Your task to perform on an android device: check storage Image 0: 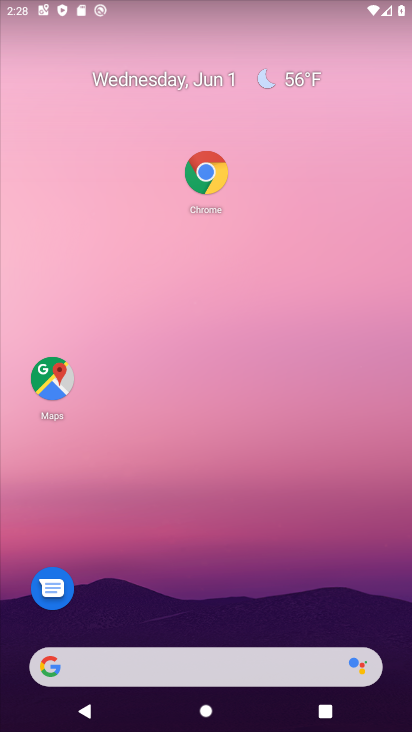
Step 0: drag from (180, 598) to (196, 75)
Your task to perform on an android device: check storage Image 1: 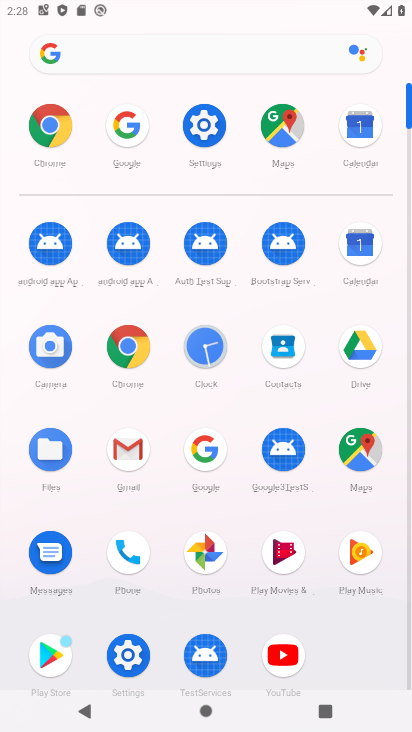
Step 1: click (110, 662)
Your task to perform on an android device: check storage Image 2: 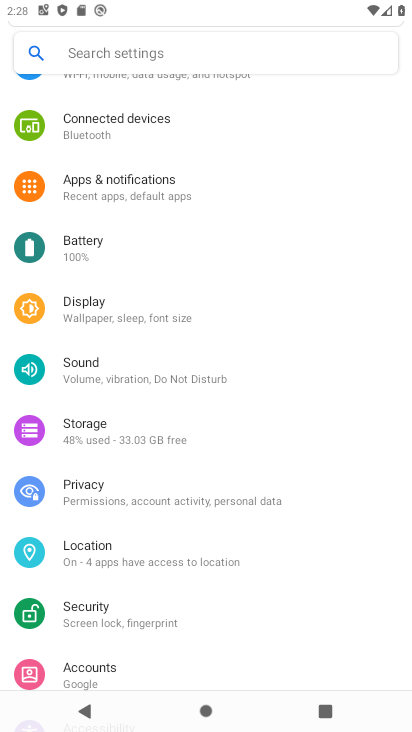
Step 2: click (90, 440)
Your task to perform on an android device: check storage Image 3: 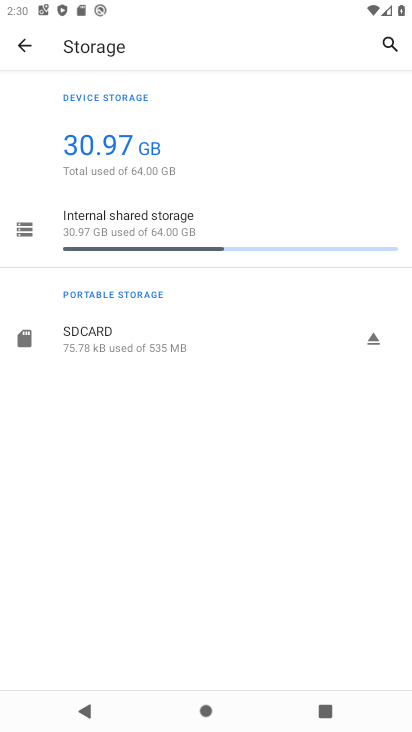
Step 3: task complete